Your task to perform on an android device: turn on the 12-hour format for clock Image 0: 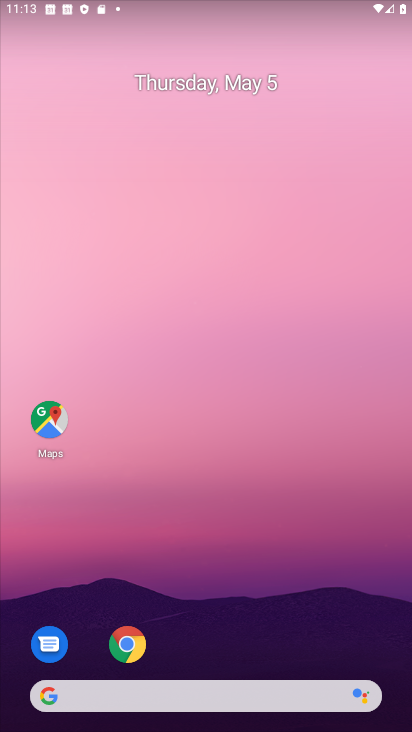
Step 0: drag from (177, 659) to (250, 185)
Your task to perform on an android device: turn on the 12-hour format for clock Image 1: 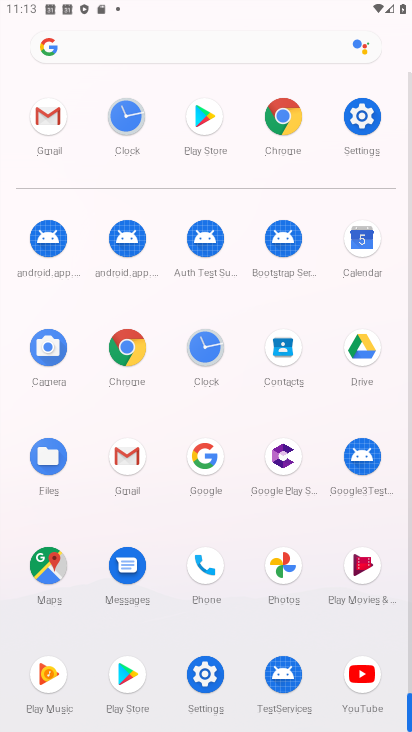
Step 1: drag from (217, 652) to (228, 310)
Your task to perform on an android device: turn on the 12-hour format for clock Image 2: 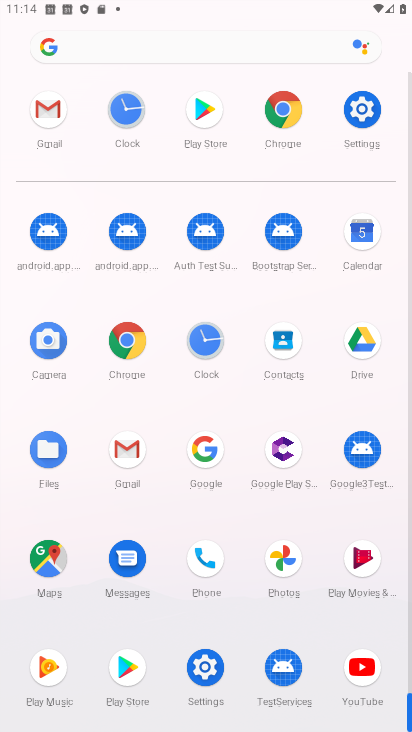
Step 2: click (220, 659)
Your task to perform on an android device: turn on the 12-hour format for clock Image 3: 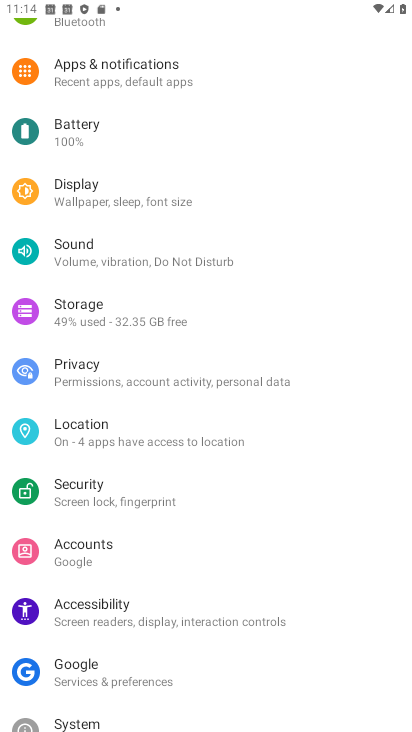
Step 3: drag from (101, 667) to (248, 333)
Your task to perform on an android device: turn on the 12-hour format for clock Image 4: 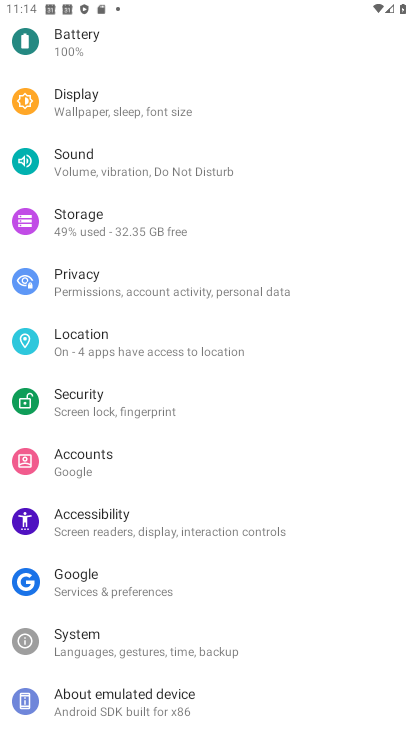
Step 4: drag from (253, 602) to (251, 247)
Your task to perform on an android device: turn on the 12-hour format for clock Image 5: 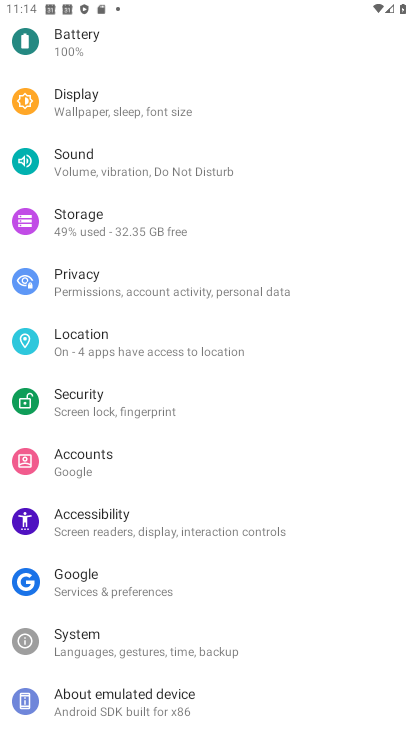
Step 5: drag from (202, 582) to (248, 321)
Your task to perform on an android device: turn on the 12-hour format for clock Image 6: 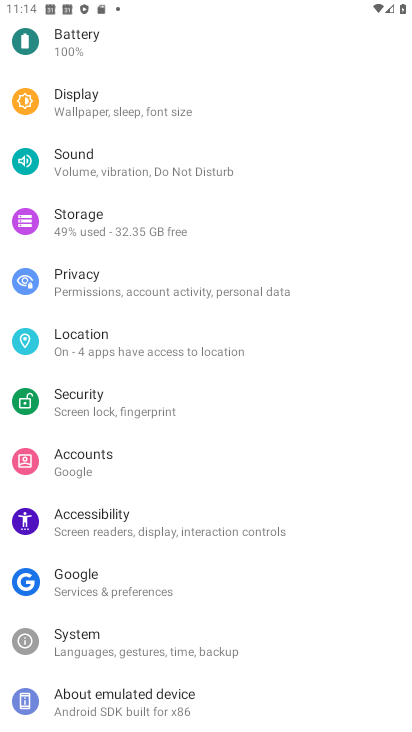
Step 6: drag from (167, 609) to (229, 338)
Your task to perform on an android device: turn on the 12-hour format for clock Image 7: 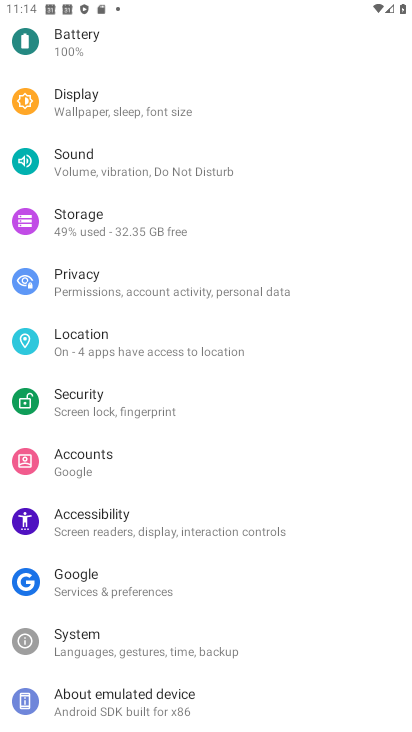
Step 7: drag from (209, 640) to (231, 407)
Your task to perform on an android device: turn on the 12-hour format for clock Image 8: 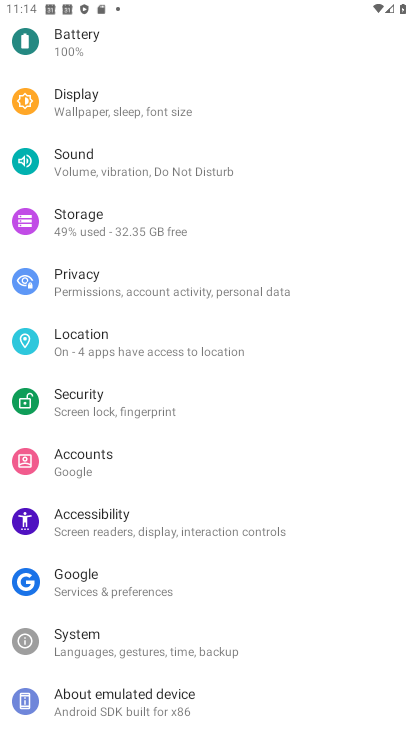
Step 8: drag from (155, 190) to (295, 700)
Your task to perform on an android device: turn on the 12-hour format for clock Image 9: 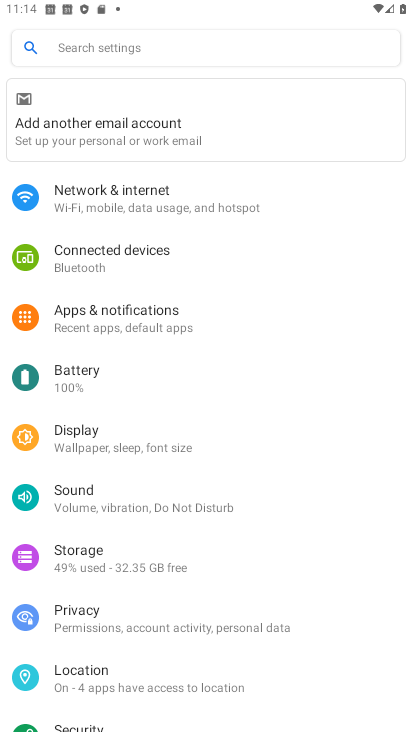
Step 9: drag from (186, 521) to (237, 130)
Your task to perform on an android device: turn on the 12-hour format for clock Image 10: 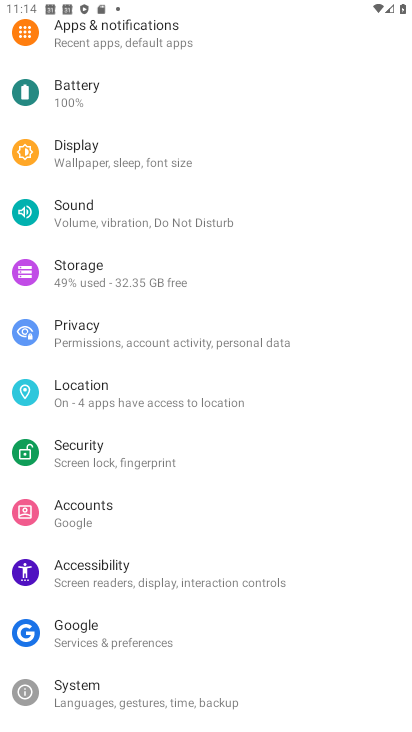
Step 10: press home button
Your task to perform on an android device: turn on the 12-hour format for clock Image 11: 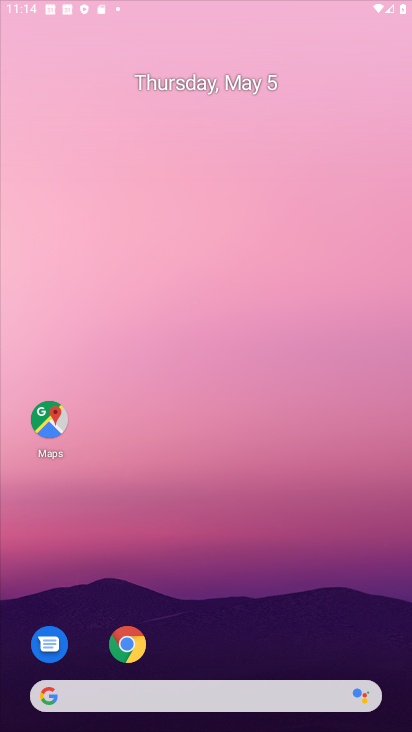
Step 11: drag from (202, 691) to (267, 80)
Your task to perform on an android device: turn on the 12-hour format for clock Image 12: 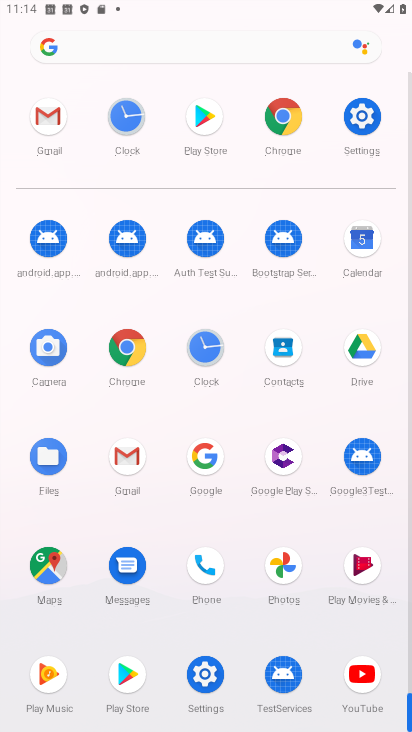
Step 12: click (212, 347)
Your task to perform on an android device: turn on the 12-hour format for clock Image 13: 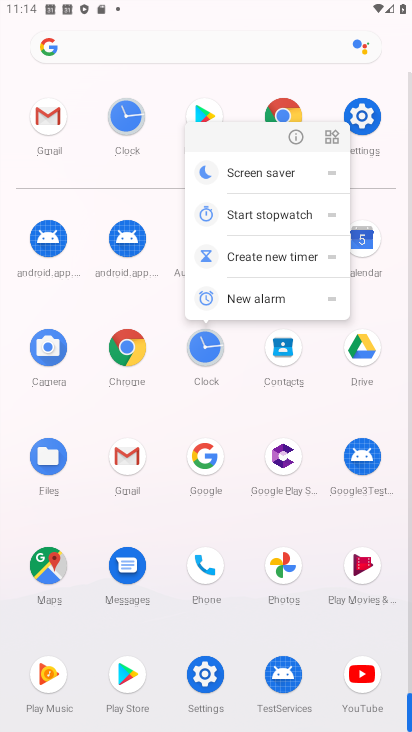
Step 13: click (298, 135)
Your task to perform on an android device: turn on the 12-hour format for clock Image 14: 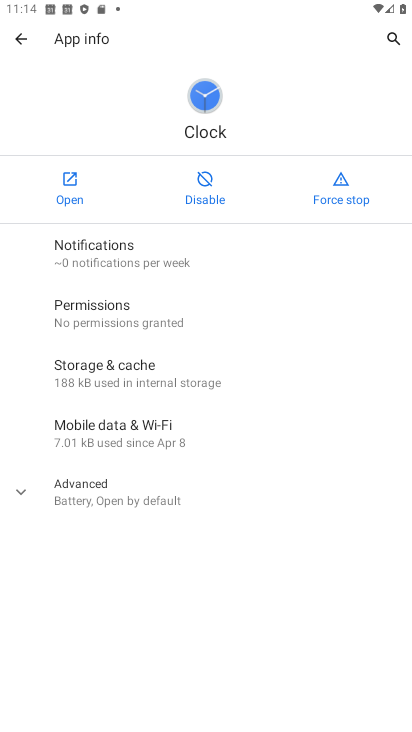
Step 14: click (71, 169)
Your task to perform on an android device: turn on the 12-hour format for clock Image 15: 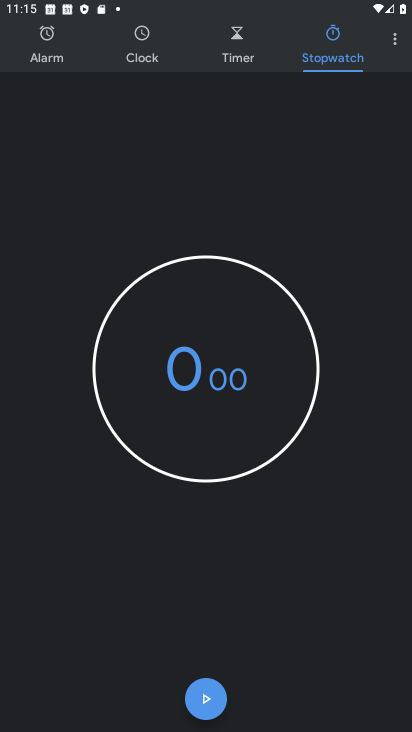
Step 15: click (395, 38)
Your task to perform on an android device: turn on the 12-hour format for clock Image 16: 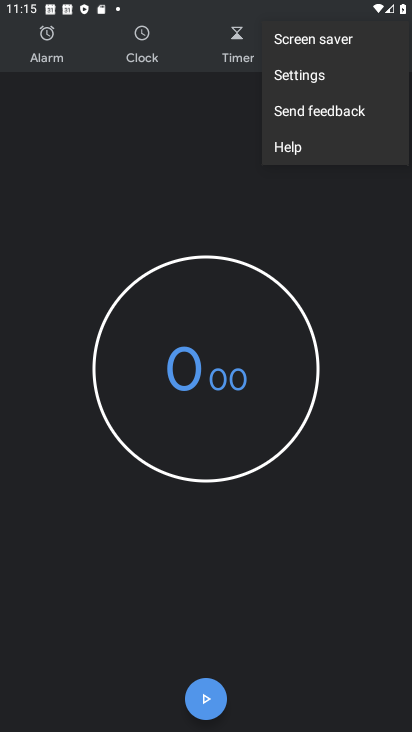
Step 16: click (310, 79)
Your task to perform on an android device: turn on the 12-hour format for clock Image 17: 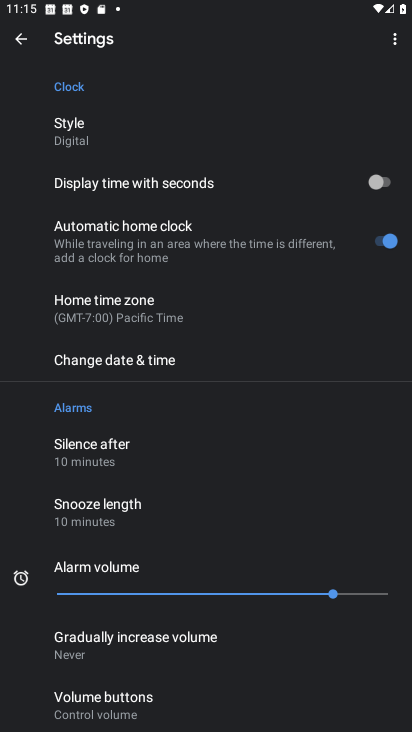
Step 17: click (148, 347)
Your task to perform on an android device: turn on the 12-hour format for clock Image 18: 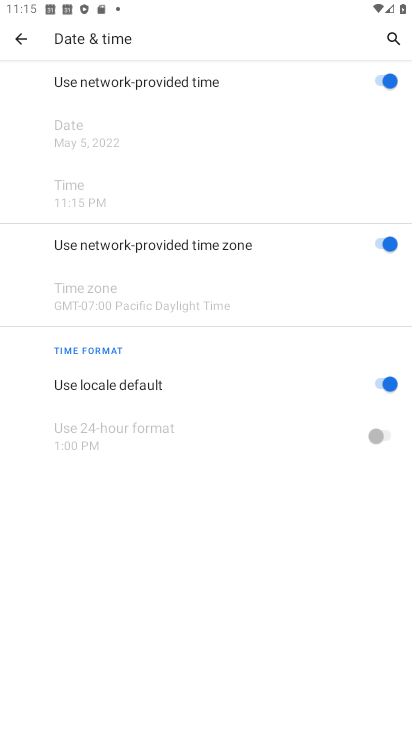
Step 18: task complete